Your task to perform on an android device: Show me the alarms in the clock app Image 0: 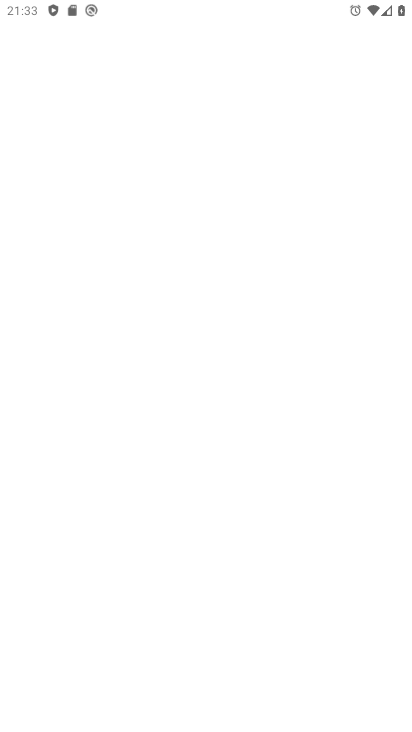
Step 0: drag from (257, 606) to (218, 138)
Your task to perform on an android device: Show me the alarms in the clock app Image 1: 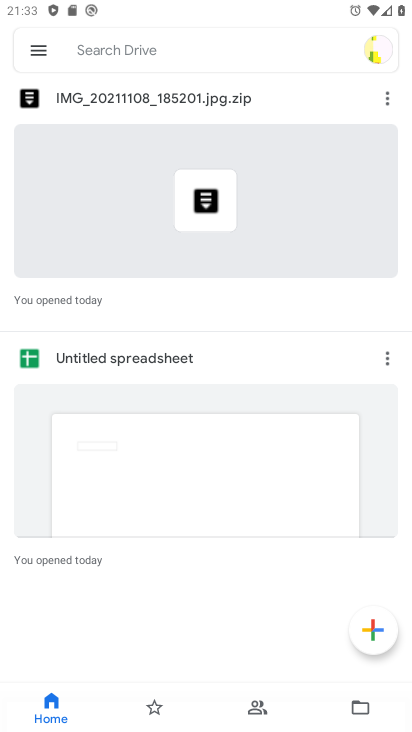
Step 1: press home button
Your task to perform on an android device: Show me the alarms in the clock app Image 2: 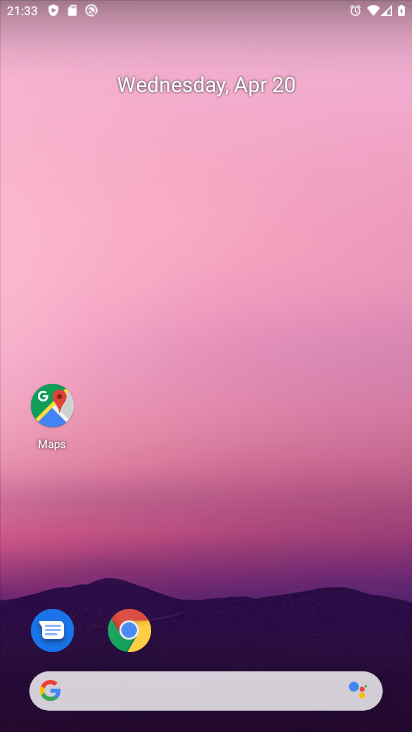
Step 2: drag from (279, 597) to (240, 96)
Your task to perform on an android device: Show me the alarms in the clock app Image 3: 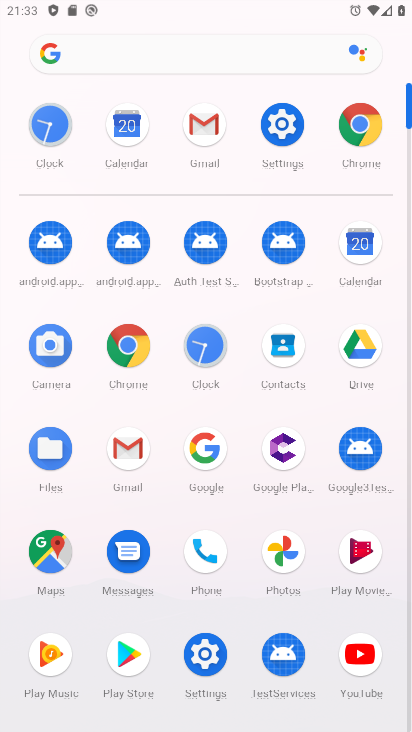
Step 3: click (195, 339)
Your task to perform on an android device: Show me the alarms in the clock app Image 4: 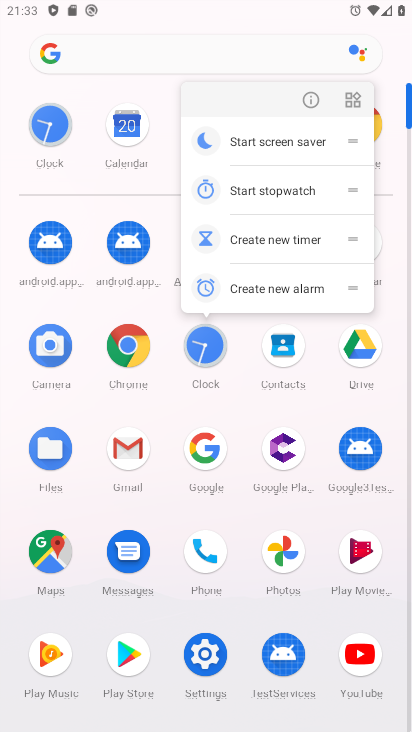
Step 4: click (194, 337)
Your task to perform on an android device: Show me the alarms in the clock app Image 5: 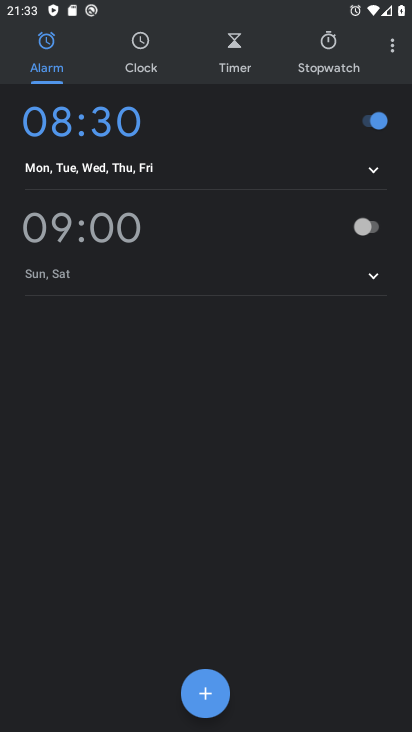
Step 5: task complete